Your task to perform on an android device: allow cookies in the chrome app Image 0: 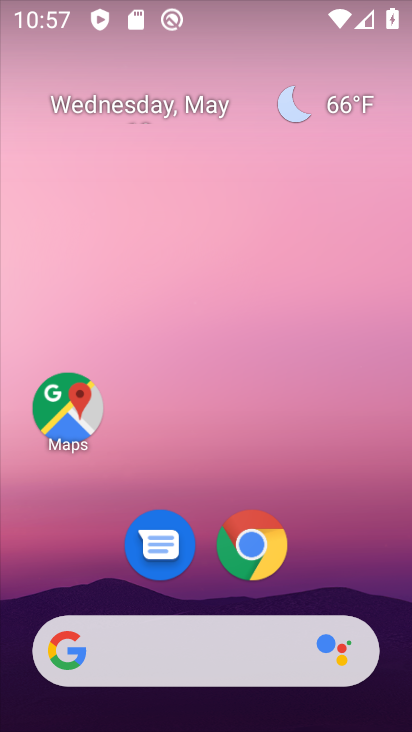
Step 0: click (263, 535)
Your task to perform on an android device: allow cookies in the chrome app Image 1: 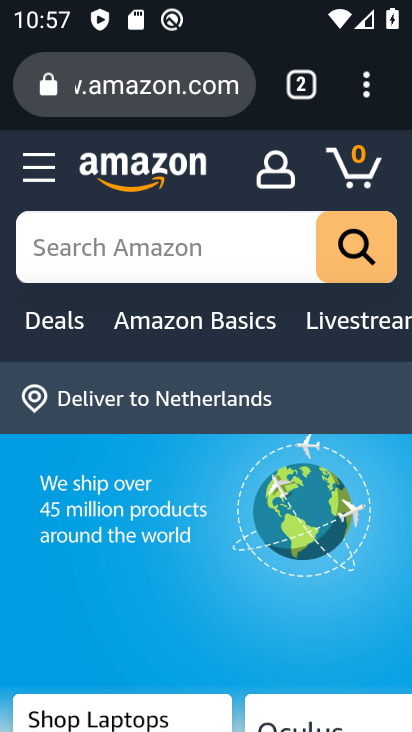
Step 1: click (369, 81)
Your task to perform on an android device: allow cookies in the chrome app Image 2: 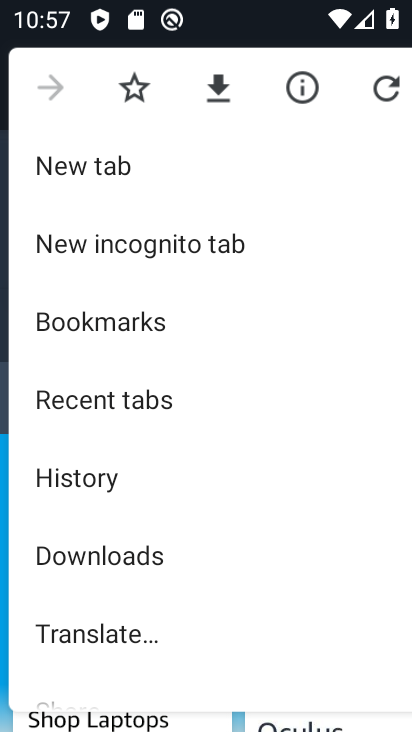
Step 2: drag from (260, 690) to (285, 67)
Your task to perform on an android device: allow cookies in the chrome app Image 3: 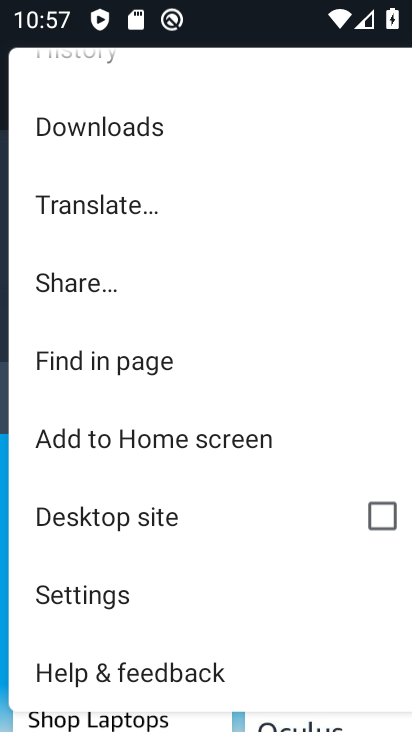
Step 3: click (87, 609)
Your task to perform on an android device: allow cookies in the chrome app Image 4: 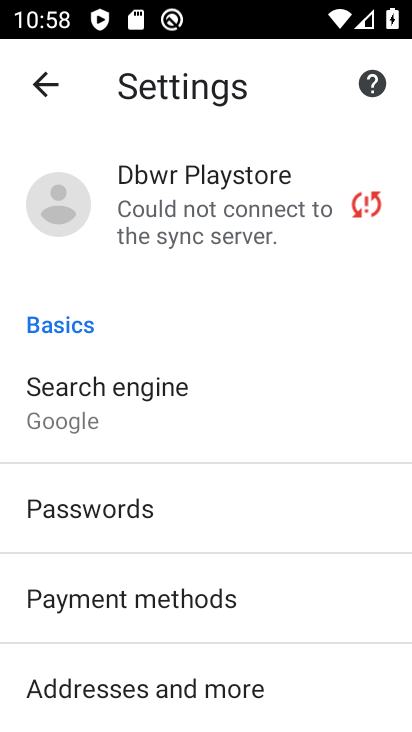
Step 4: drag from (314, 604) to (325, 72)
Your task to perform on an android device: allow cookies in the chrome app Image 5: 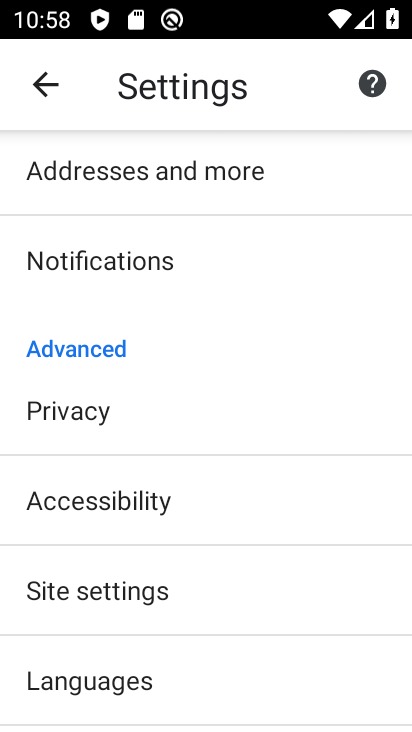
Step 5: click (143, 602)
Your task to perform on an android device: allow cookies in the chrome app Image 6: 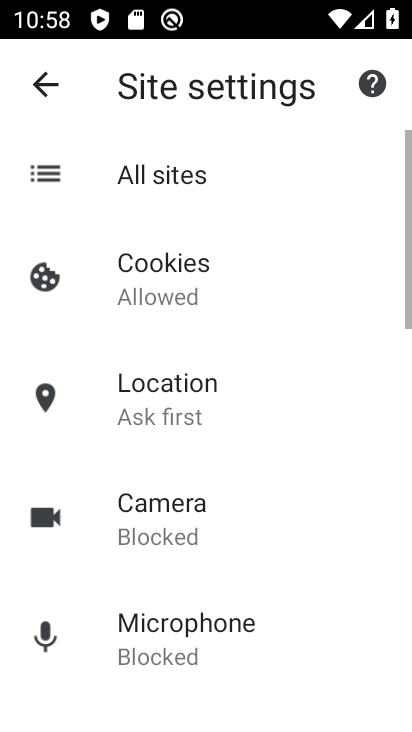
Step 6: click (211, 300)
Your task to perform on an android device: allow cookies in the chrome app Image 7: 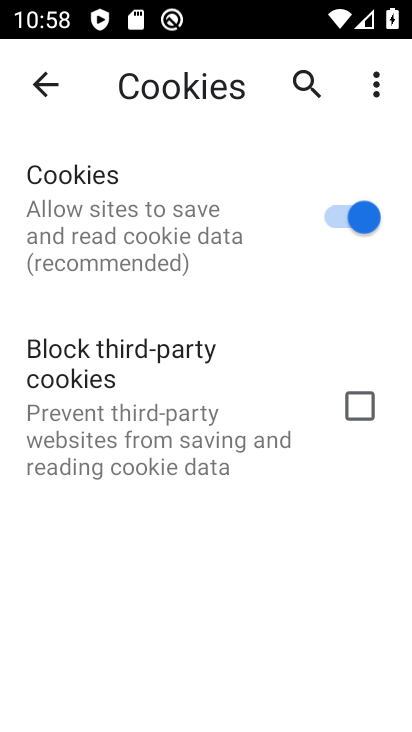
Step 7: task complete